Your task to perform on an android device: Do I have any events this weekend? Image 0: 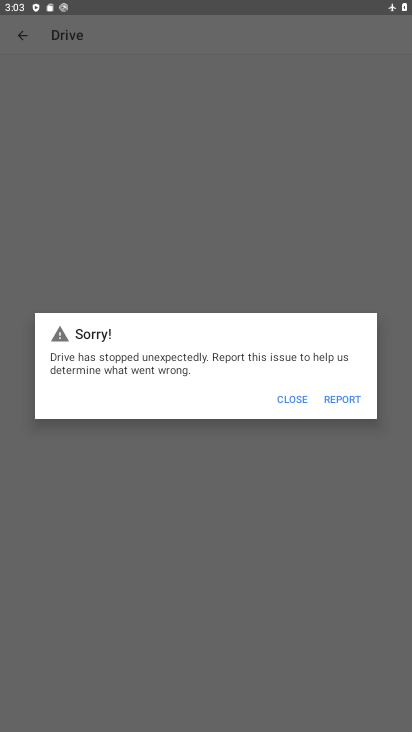
Step 0: press home button
Your task to perform on an android device: Do I have any events this weekend? Image 1: 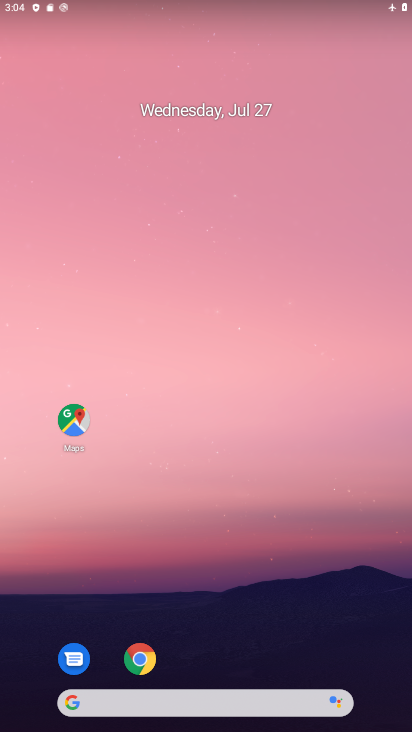
Step 1: drag from (224, 636) to (266, 1)
Your task to perform on an android device: Do I have any events this weekend? Image 2: 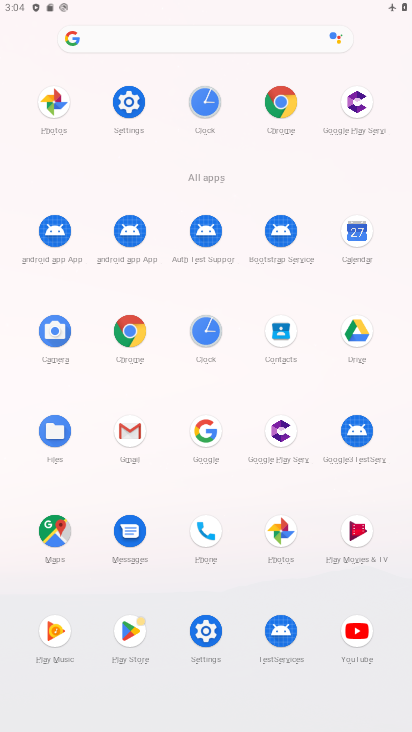
Step 2: click (357, 241)
Your task to perform on an android device: Do I have any events this weekend? Image 3: 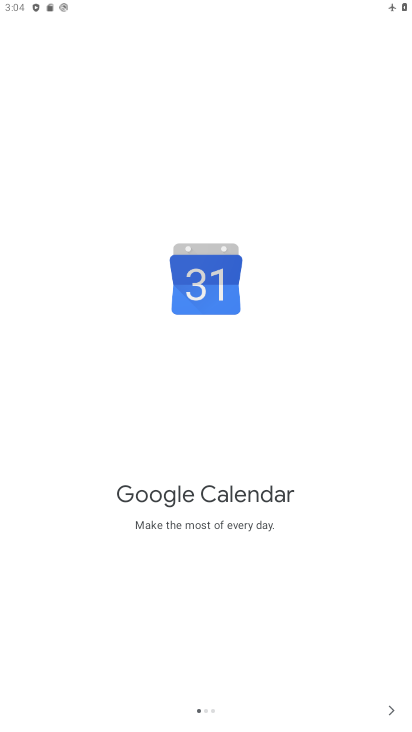
Step 3: click (393, 714)
Your task to perform on an android device: Do I have any events this weekend? Image 4: 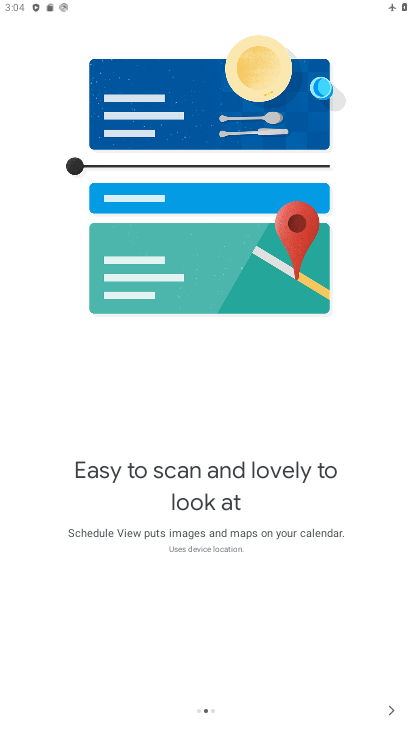
Step 4: click (393, 714)
Your task to perform on an android device: Do I have any events this weekend? Image 5: 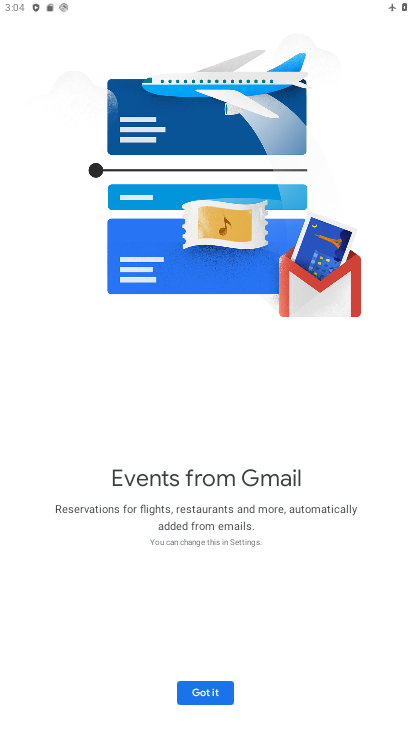
Step 5: click (219, 689)
Your task to perform on an android device: Do I have any events this weekend? Image 6: 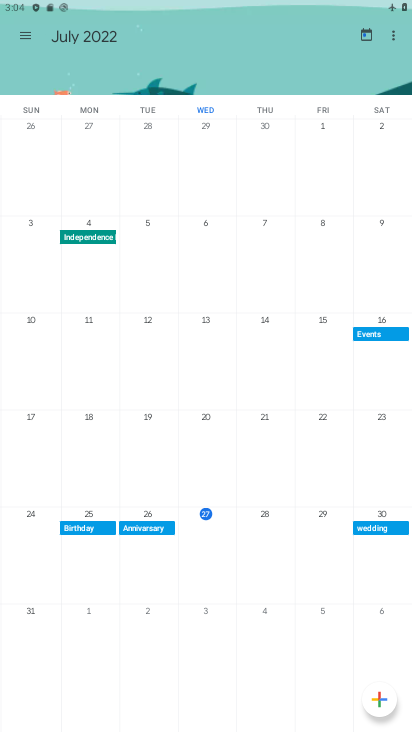
Step 6: click (30, 39)
Your task to perform on an android device: Do I have any events this weekend? Image 7: 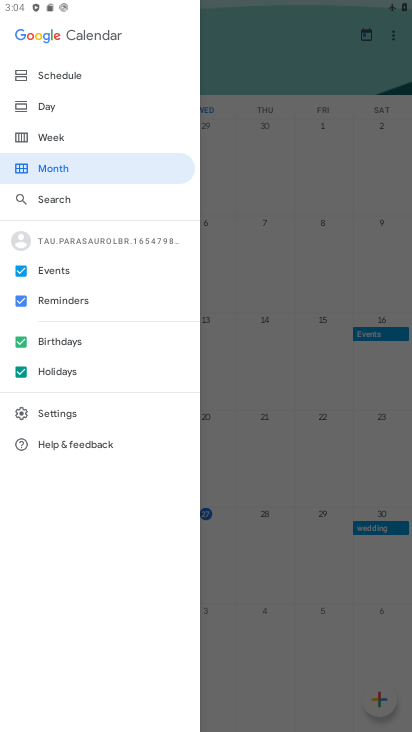
Step 7: click (52, 146)
Your task to perform on an android device: Do I have any events this weekend? Image 8: 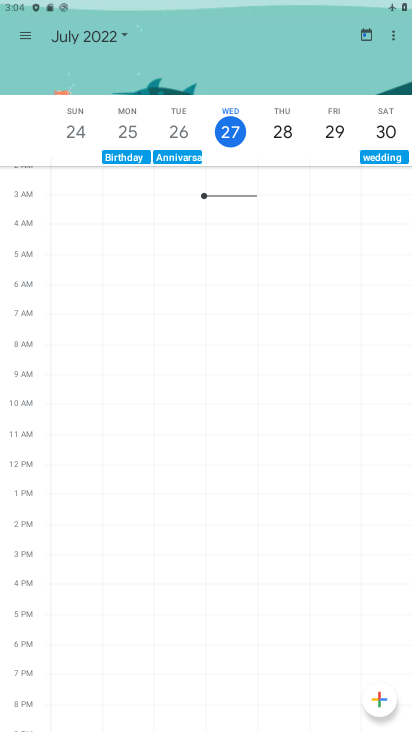
Step 8: click (25, 38)
Your task to perform on an android device: Do I have any events this weekend? Image 9: 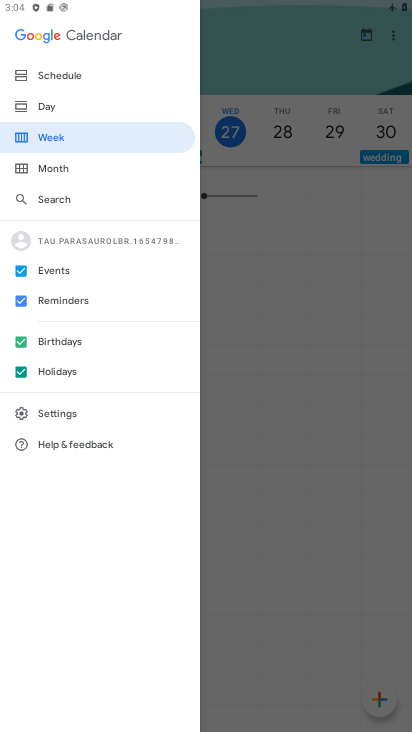
Step 9: click (36, 137)
Your task to perform on an android device: Do I have any events this weekend? Image 10: 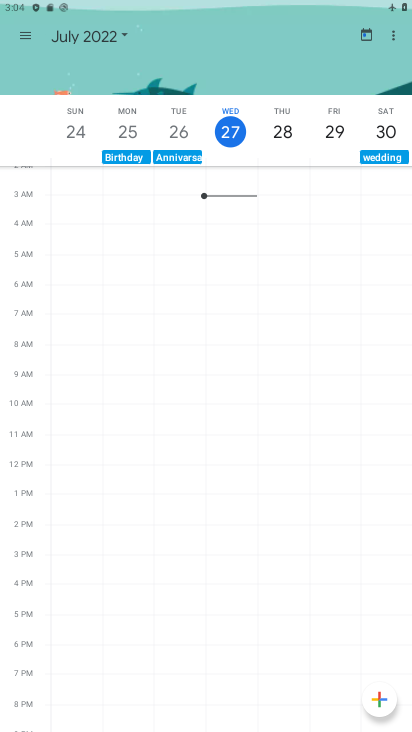
Step 10: click (392, 164)
Your task to perform on an android device: Do I have any events this weekend? Image 11: 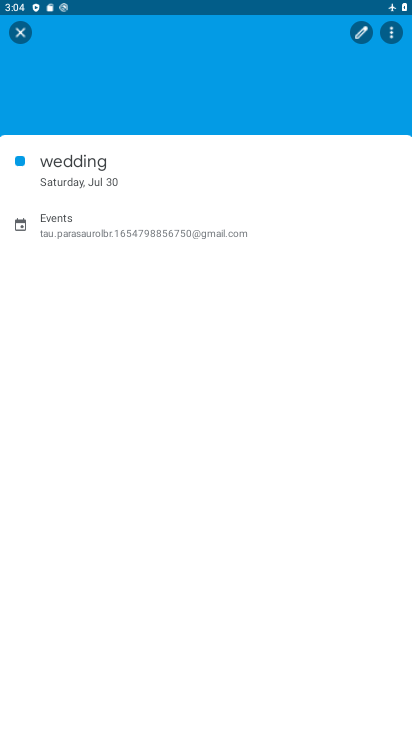
Step 11: task complete